Your task to perform on an android device: open a new tab in the chrome app Image 0: 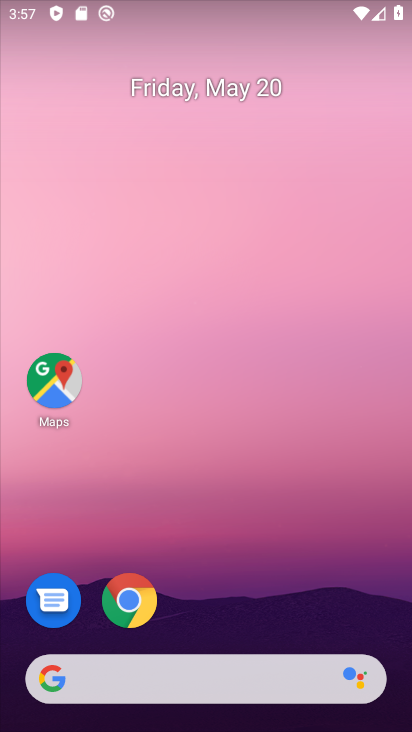
Step 0: click (125, 588)
Your task to perform on an android device: open a new tab in the chrome app Image 1: 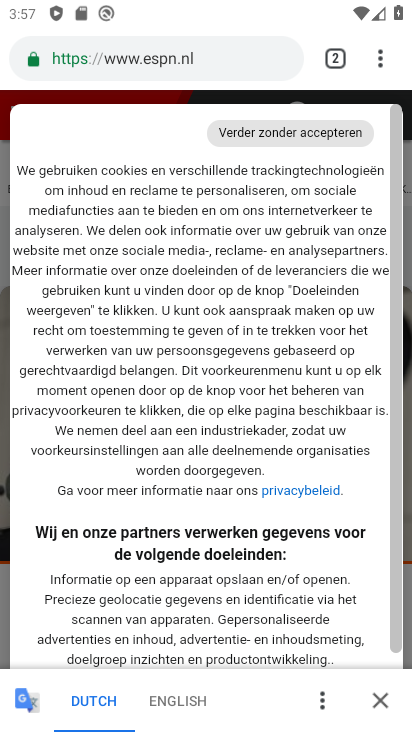
Step 1: click (333, 62)
Your task to perform on an android device: open a new tab in the chrome app Image 2: 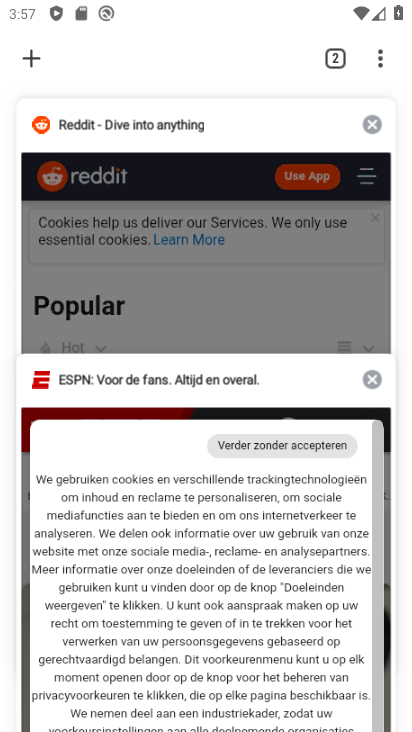
Step 2: click (32, 49)
Your task to perform on an android device: open a new tab in the chrome app Image 3: 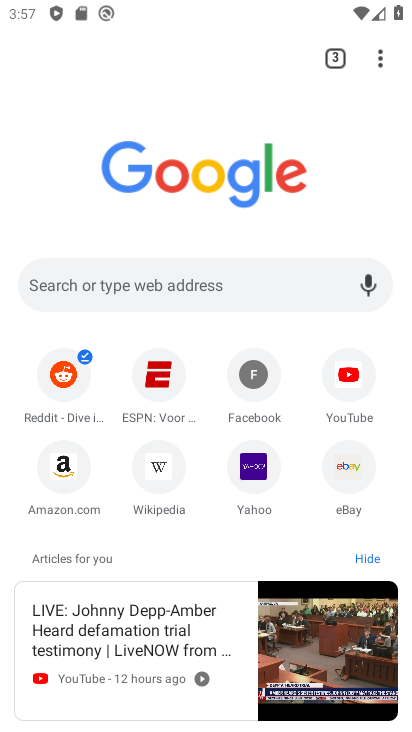
Step 3: task complete